Your task to perform on an android device: Go to Maps Image 0: 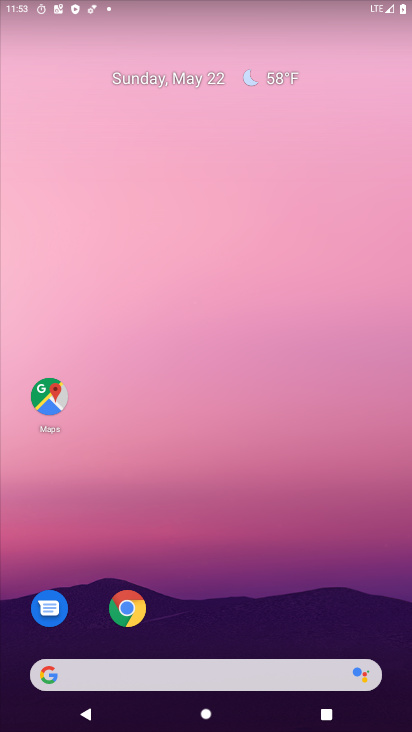
Step 0: click (45, 405)
Your task to perform on an android device: Go to Maps Image 1: 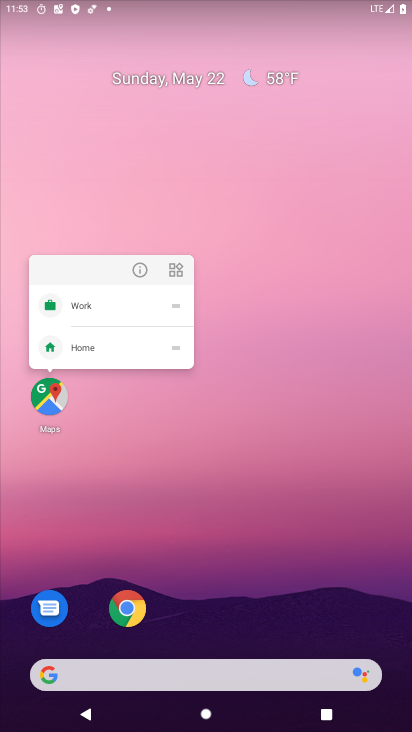
Step 1: click (45, 405)
Your task to perform on an android device: Go to Maps Image 2: 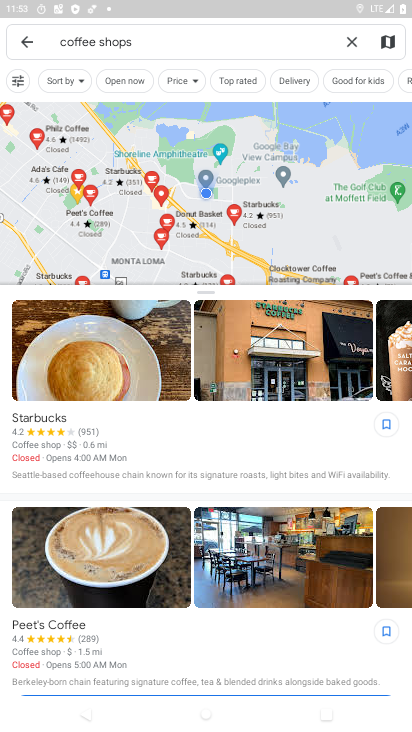
Step 2: task complete